Your task to perform on an android device: show emergency info Image 0: 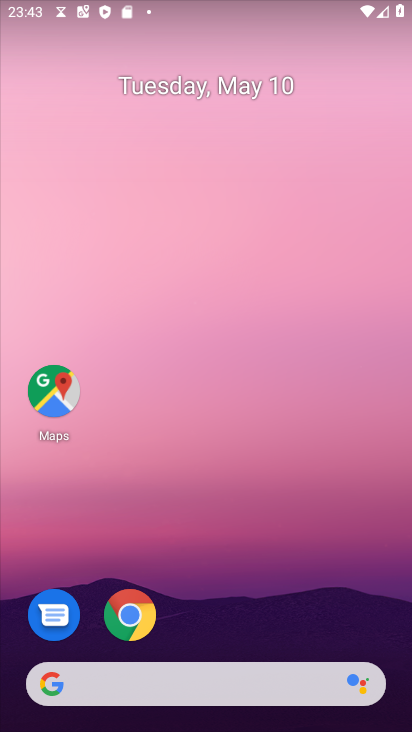
Step 0: drag from (266, 588) to (200, 94)
Your task to perform on an android device: show emergency info Image 1: 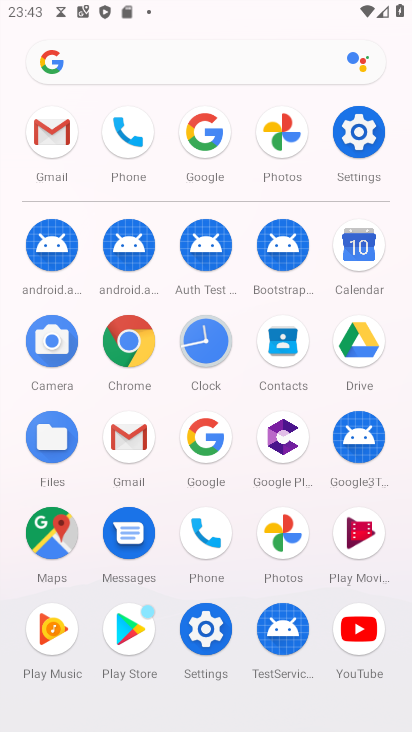
Step 1: click (357, 131)
Your task to perform on an android device: show emergency info Image 2: 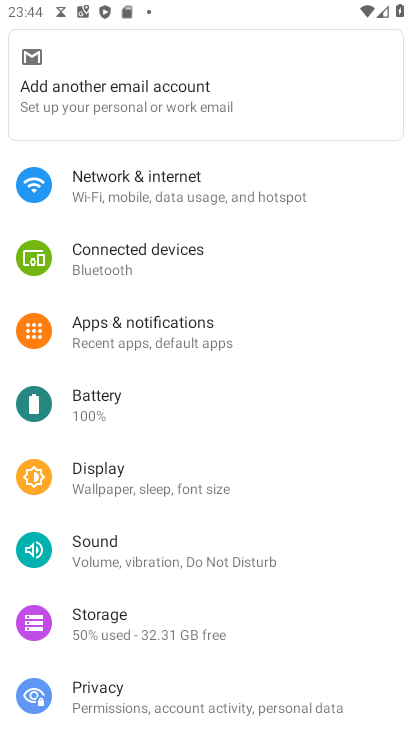
Step 2: drag from (134, 374) to (216, 230)
Your task to perform on an android device: show emergency info Image 3: 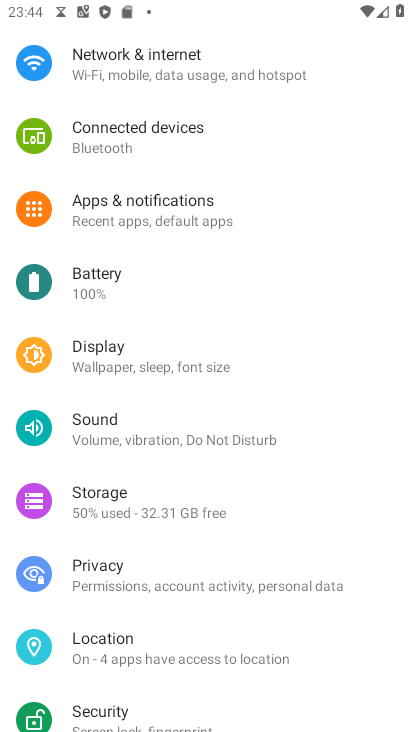
Step 3: drag from (109, 397) to (197, 294)
Your task to perform on an android device: show emergency info Image 4: 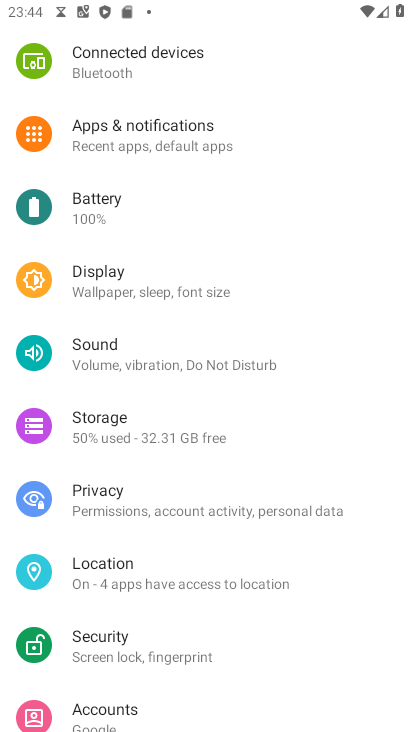
Step 4: drag from (165, 476) to (243, 331)
Your task to perform on an android device: show emergency info Image 5: 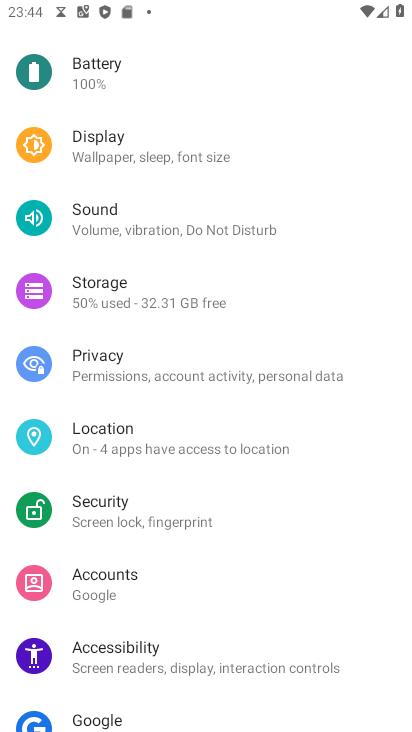
Step 5: drag from (111, 404) to (184, 308)
Your task to perform on an android device: show emergency info Image 6: 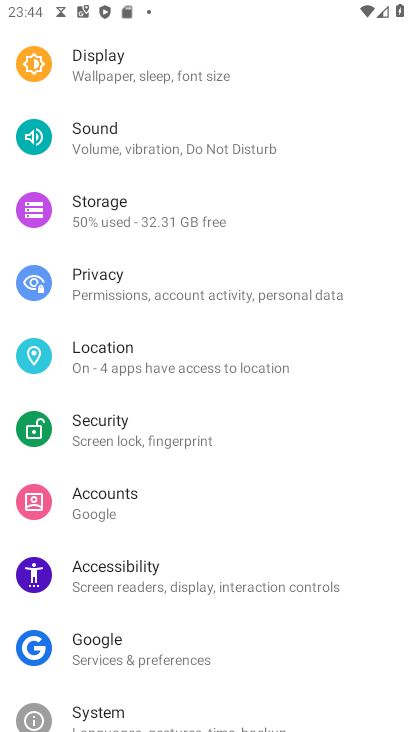
Step 6: drag from (92, 467) to (186, 351)
Your task to perform on an android device: show emergency info Image 7: 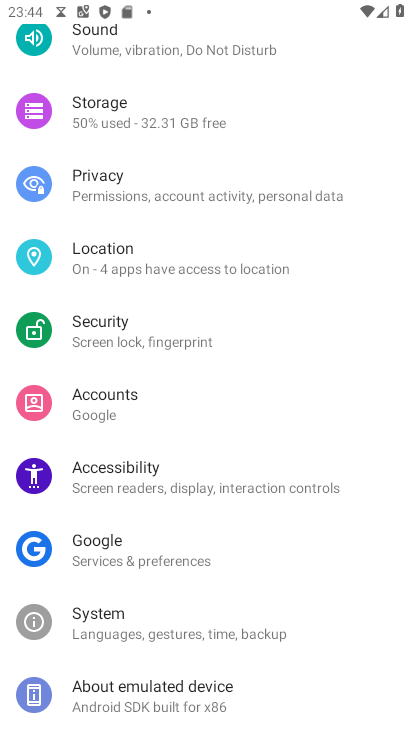
Step 7: drag from (66, 511) to (194, 351)
Your task to perform on an android device: show emergency info Image 8: 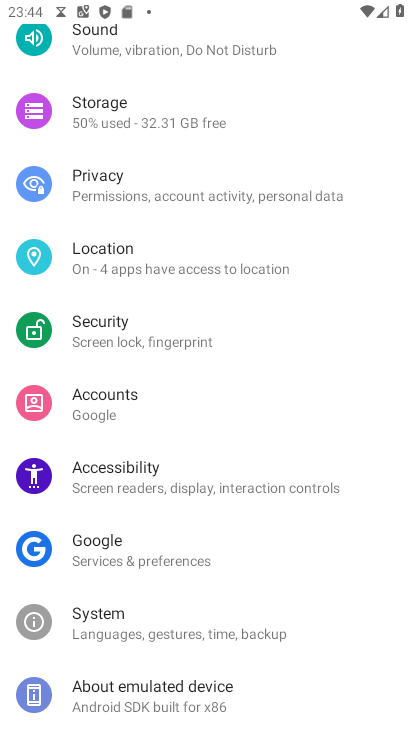
Step 8: click (98, 682)
Your task to perform on an android device: show emergency info Image 9: 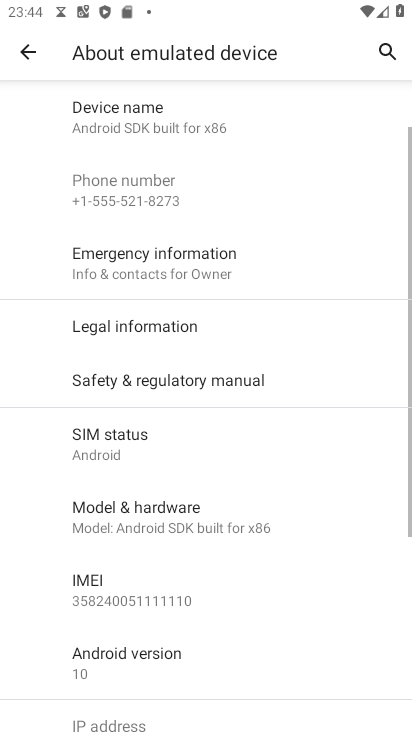
Step 9: click (195, 252)
Your task to perform on an android device: show emergency info Image 10: 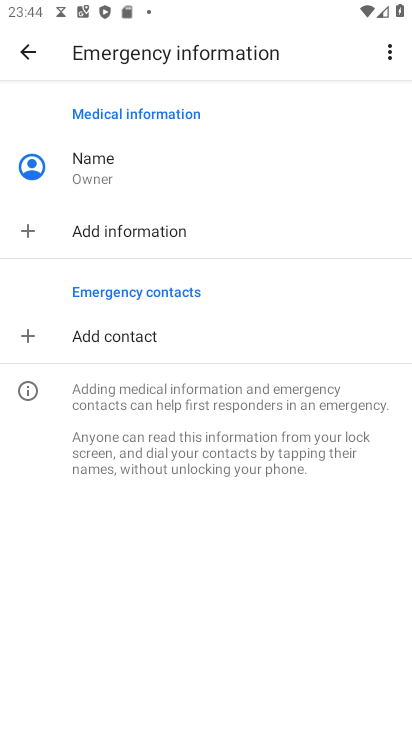
Step 10: task complete